Your task to perform on an android device: turn on airplane mode Image 0: 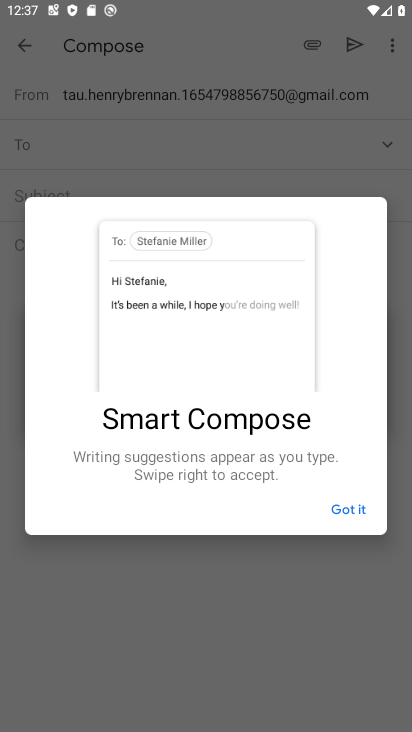
Step 0: press home button
Your task to perform on an android device: turn on airplane mode Image 1: 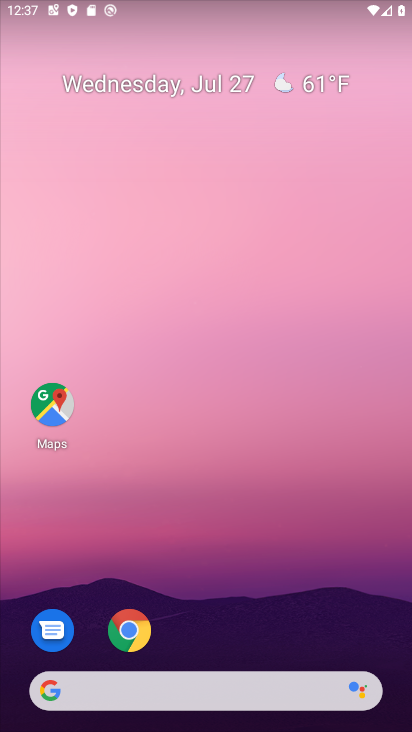
Step 1: drag from (147, 670) to (219, 67)
Your task to perform on an android device: turn on airplane mode Image 2: 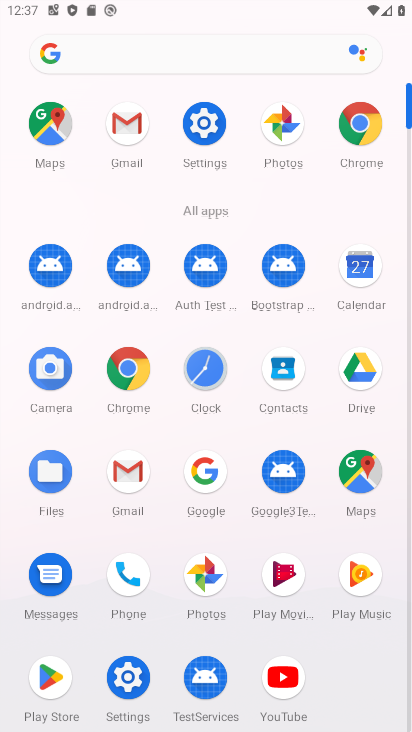
Step 2: click (203, 131)
Your task to perform on an android device: turn on airplane mode Image 3: 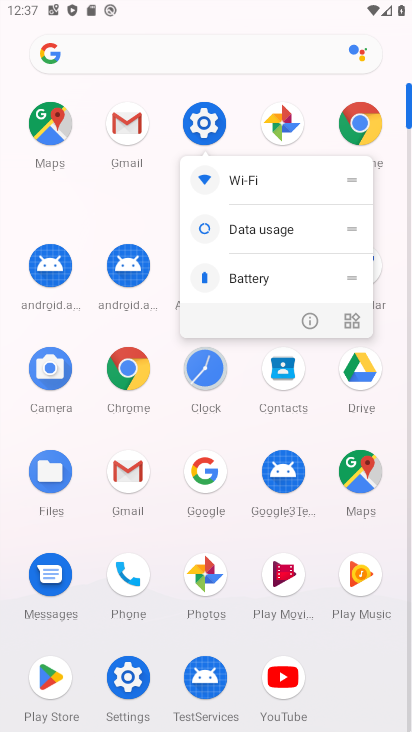
Step 3: click (203, 131)
Your task to perform on an android device: turn on airplane mode Image 4: 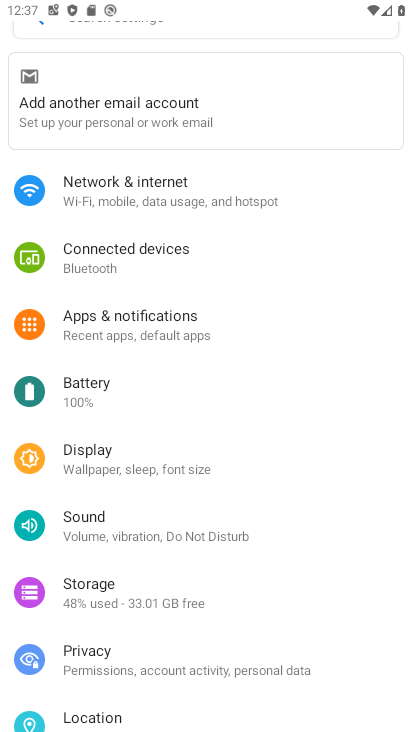
Step 4: click (162, 184)
Your task to perform on an android device: turn on airplane mode Image 5: 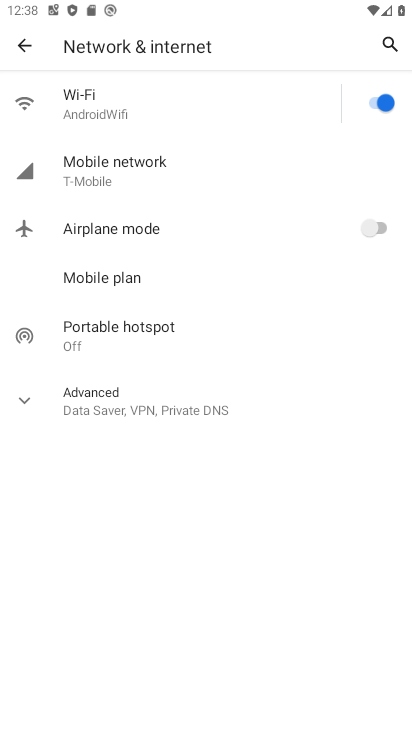
Step 5: click (380, 219)
Your task to perform on an android device: turn on airplane mode Image 6: 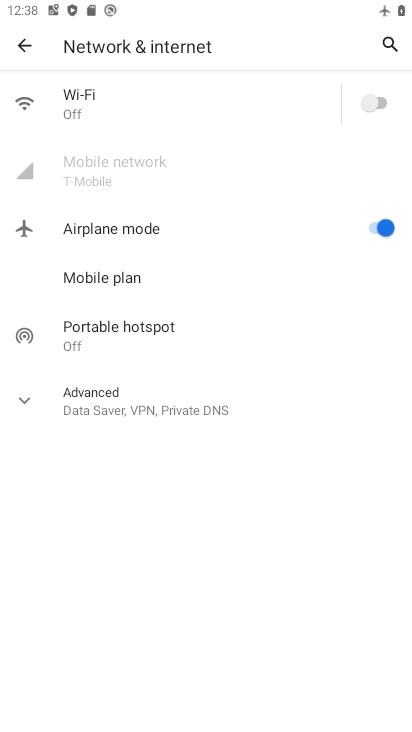
Step 6: task complete